Your task to perform on an android device: toggle airplane mode Image 0: 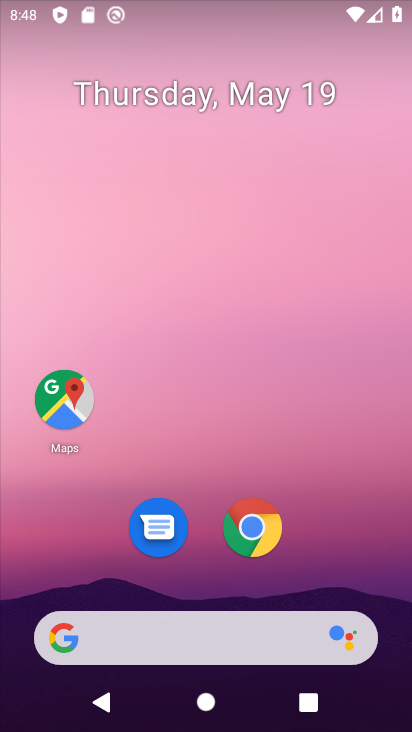
Step 0: click (286, 298)
Your task to perform on an android device: toggle airplane mode Image 1: 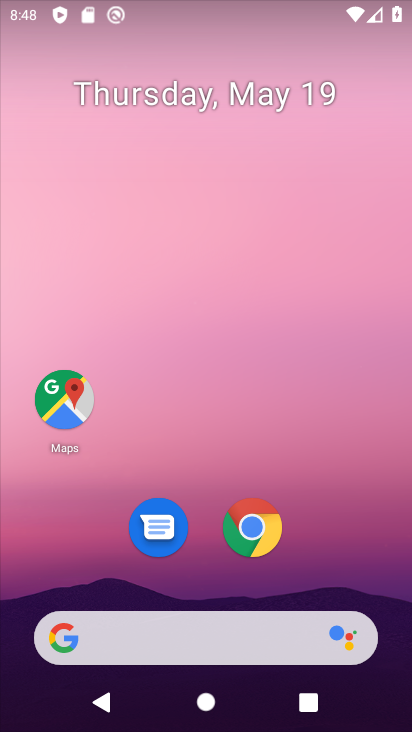
Step 1: drag from (218, 612) to (257, 271)
Your task to perform on an android device: toggle airplane mode Image 2: 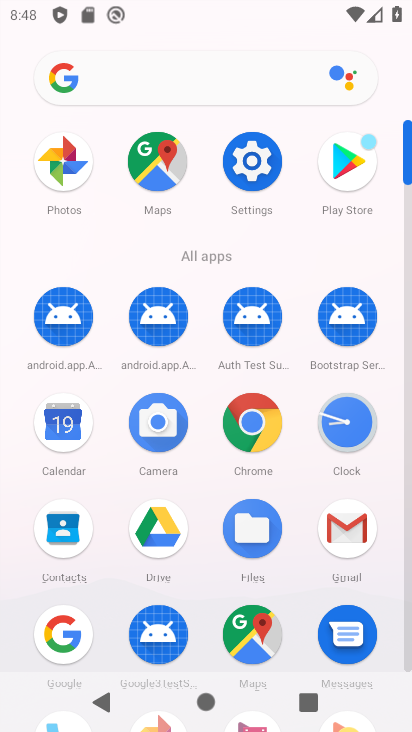
Step 2: click (245, 162)
Your task to perform on an android device: toggle airplane mode Image 3: 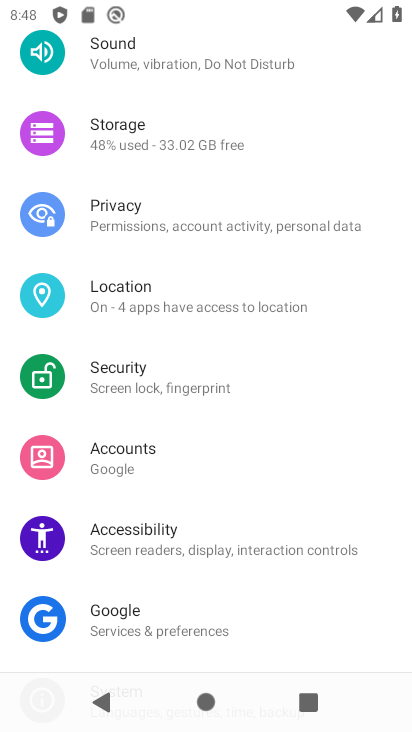
Step 3: drag from (197, 140) to (231, 544)
Your task to perform on an android device: toggle airplane mode Image 4: 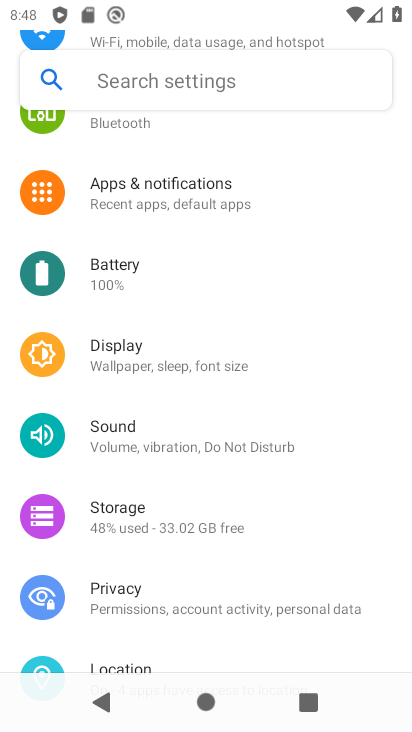
Step 4: drag from (186, 162) to (231, 539)
Your task to perform on an android device: toggle airplane mode Image 5: 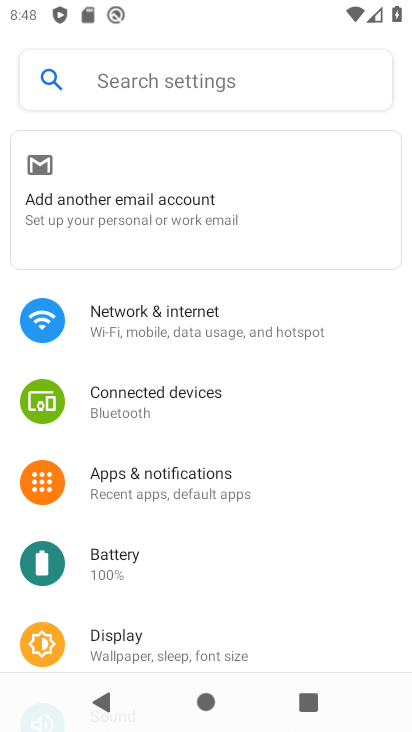
Step 5: click (167, 324)
Your task to perform on an android device: toggle airplane mode Image 6: 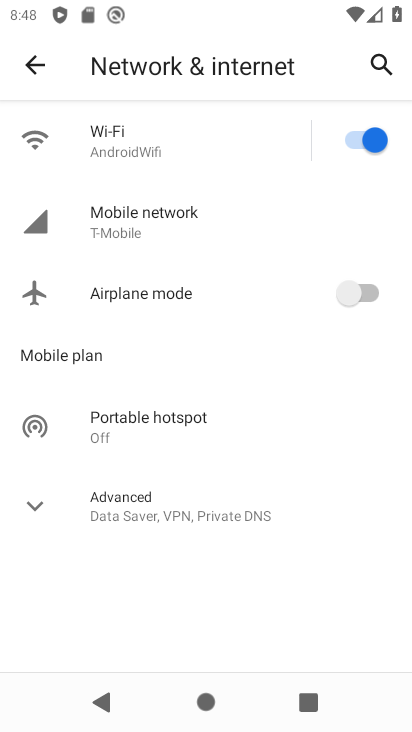
Step 6: click (199, 251)
Your task to perform on an android device: toggle airplane mode Image 7: 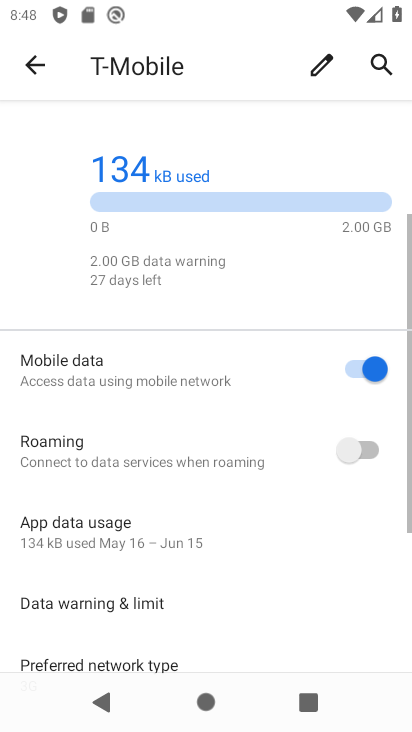
Step 7: click (29, 63)
Your task to perform on an android device: toggle airplane mode Image 8: 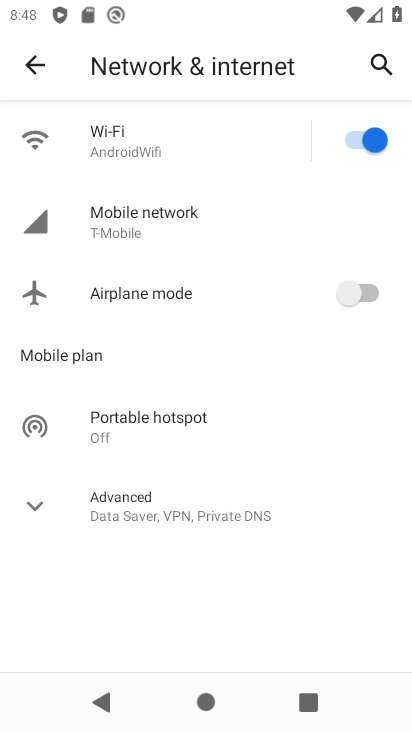
Step 8: click (337, 289)
Your task to perform on an android device: toggle airplane mode Image 9: 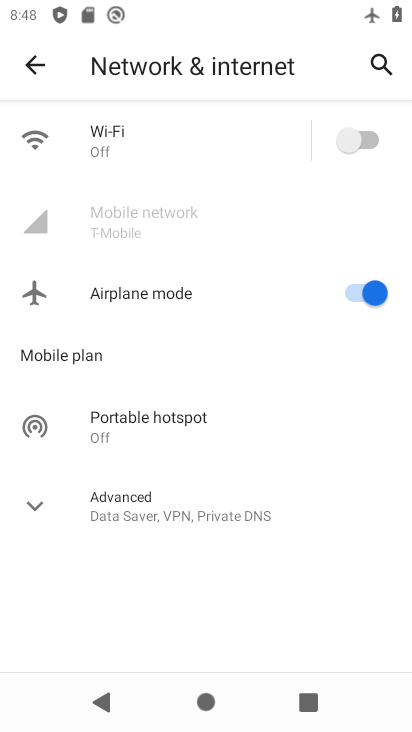
Step 9: task complete